Your task to perform on an android device: refresh tabs in the chrome app Image 0: 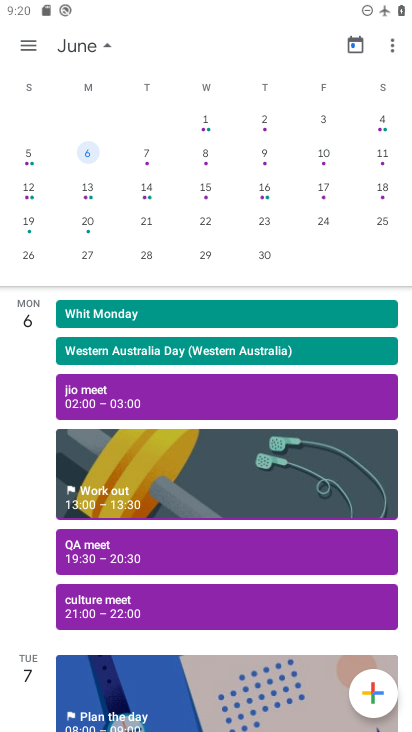
Step 0: press home button
Your task to perform on an android device: refresh tabs in the chrome app Image 1: 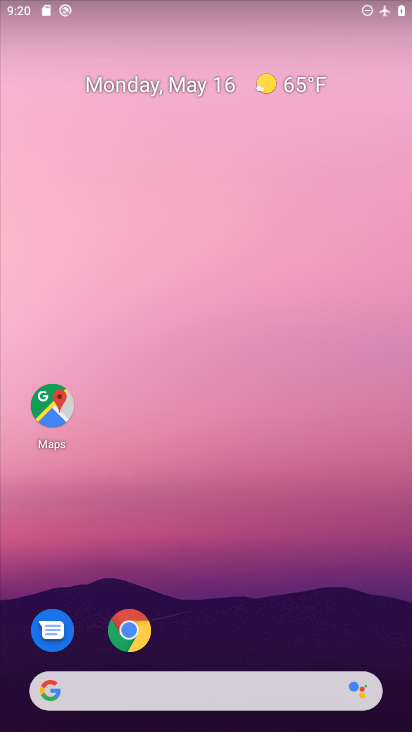
Step 1: click (138, 629)
Your task to perform on an android device: refresh tabs in the chrome app Image 2: 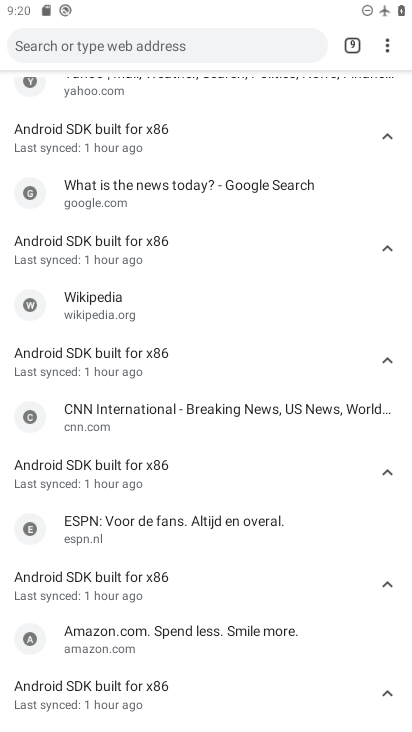
Step 2: click (388, 52)
Your task to perform on an android device: refresh tabs in the chrome app Image 3: 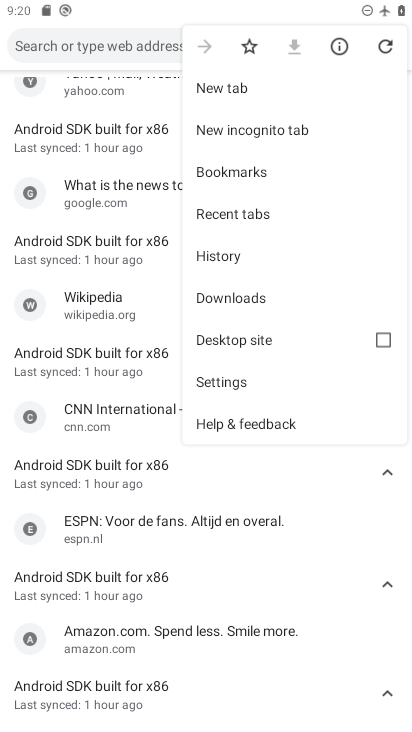
Step 3: click (377, 36)
Your task to perform on an android device: refresh tabs in the chrome app Image 4: 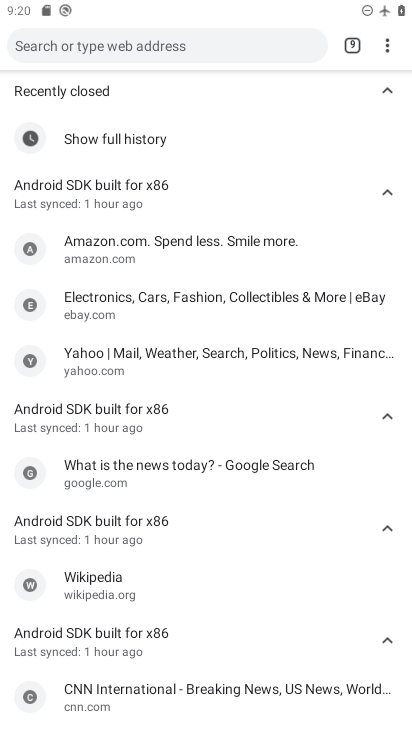
Step 4: click (381, 41)
Your task to perform on an android device: refresh tabs in the chrome app Image 5: 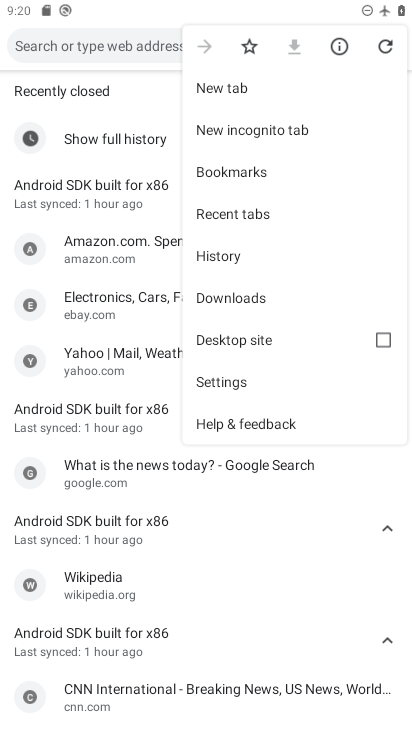
Step 5: click (380, 53)
Your task to perform on an android device: refresh tabs in the chrome app Image 6: 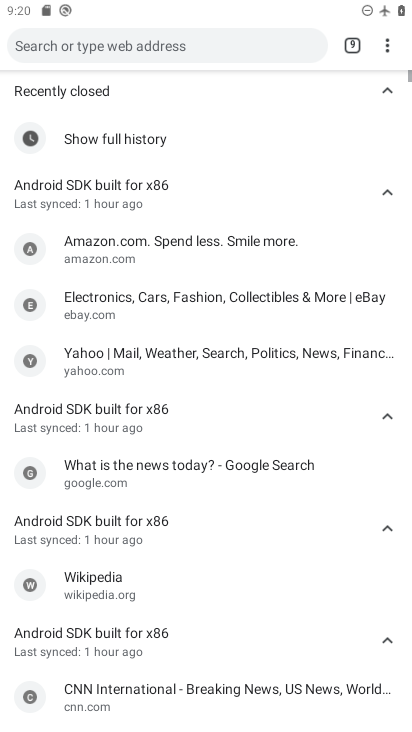
Step 6: click (382, 49)
Your task to perform on an android device: refresh tabs in the chrome app Image 7: 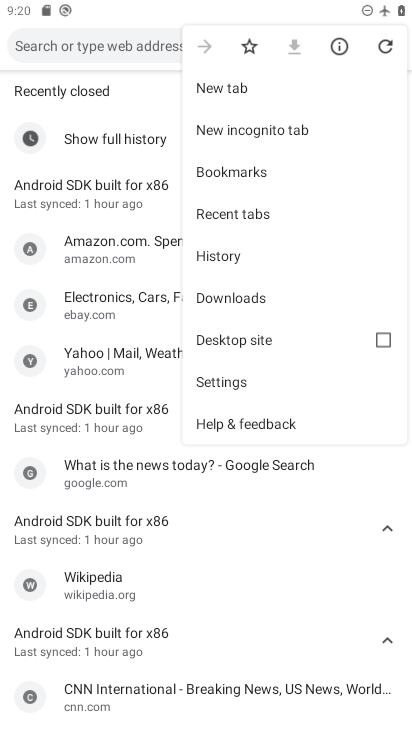
Step 7: task complete